Your task to perform on an android device: open the mobile data screen to see how much data has been used Image 0: 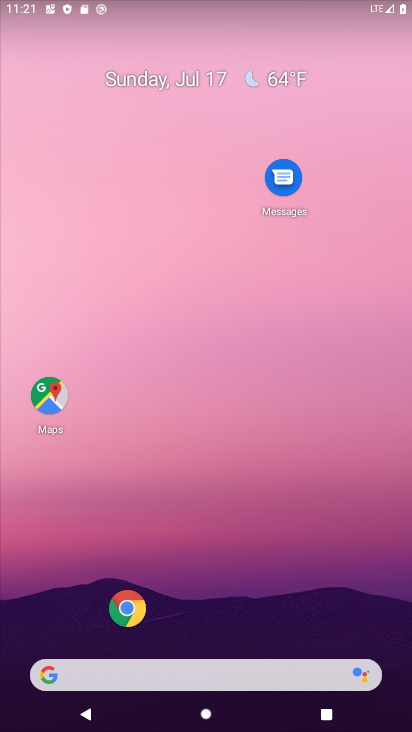
Step 0: drag from (33, 697) to (101, 208)
Your task to perform on an android device: open the mobile data screen to see how much data has been used Image 1: 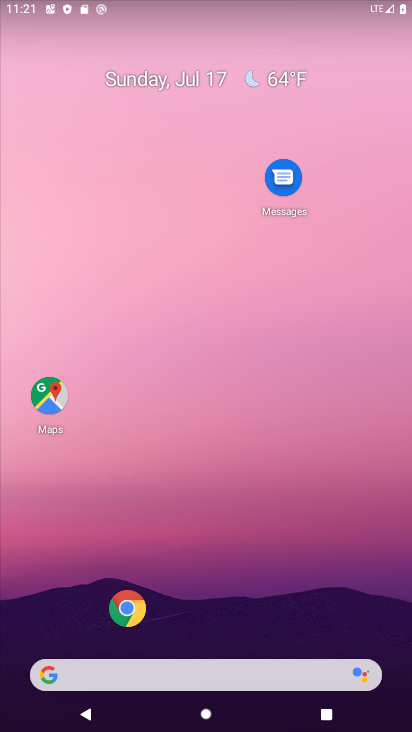
Step 1: drag from (32, 636) to (71, 87)
Your task to perform on an android device: open the mobile data screen to see how much data has been used Image 2: 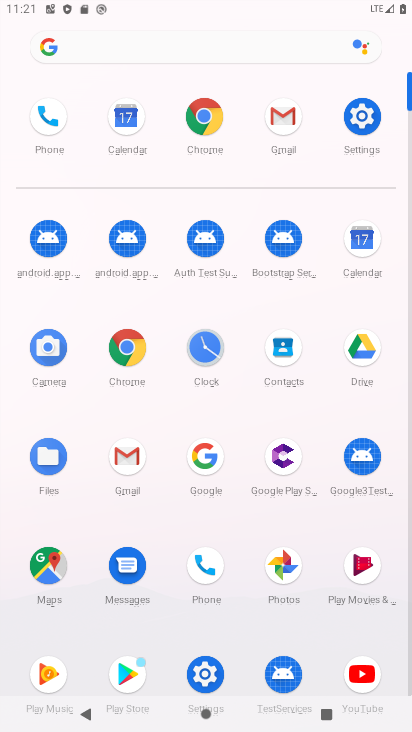
Step 2: click (204, 663)
Your task to perform on an android device: open the mobile data screen to see how much data has been used Image 3: 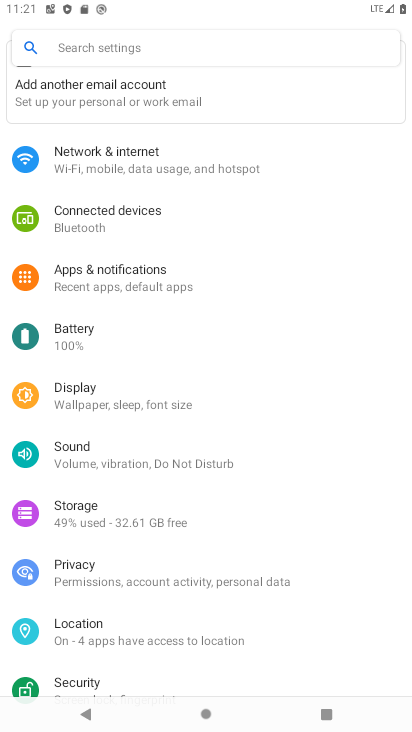
Step 3: click (126, 145)
Your task to perform on an android device: open the mobile data screen to see how much data has been used Image 4: 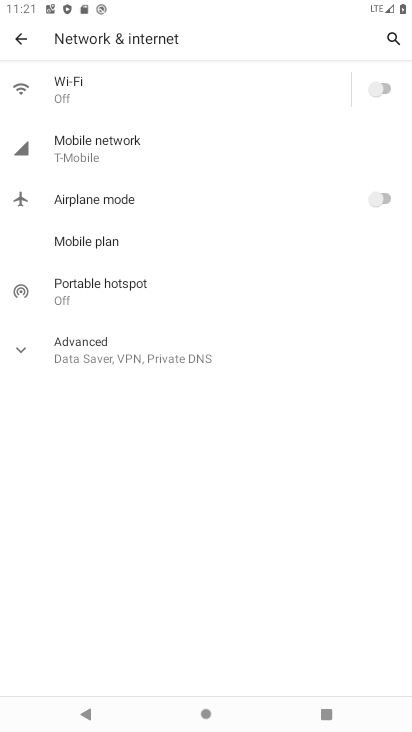
Step 4: click (73, 153)
Your task to perform on an android device: open the mobile data screen to see how much data has been used Image 5: 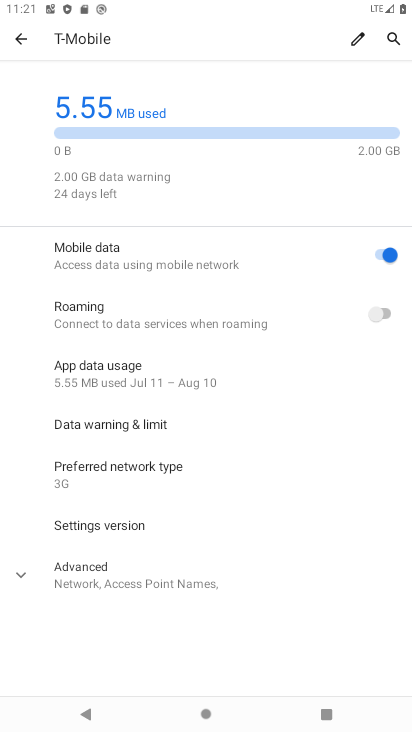
Step 5: task complete